Your task to perform on an android device: find snoozed emails in the gmail app Image 0: 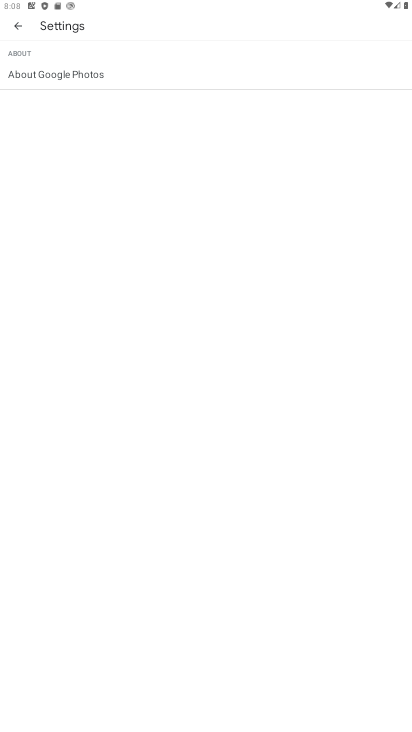
Step 0: press home button
Your task to perform on an android device: find snoozed emails in the gmail app Image 1: 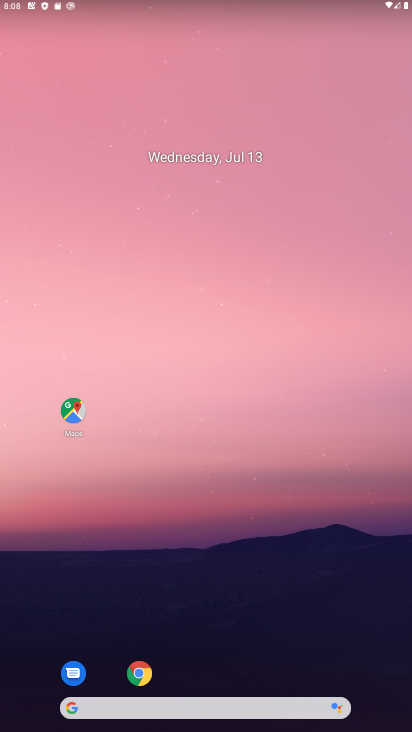
Step 1: drag from (340, 592) to (230, 50)
Your task to perform on an android device: find snoozed emails in the gmail app Image 2: 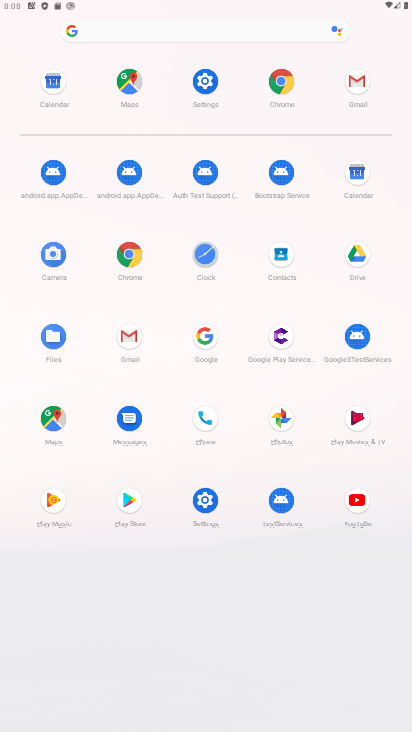
Step 2: click (365, 75)
Your task to perform on an android device: find snoozed emails in the gmail app Image 3: 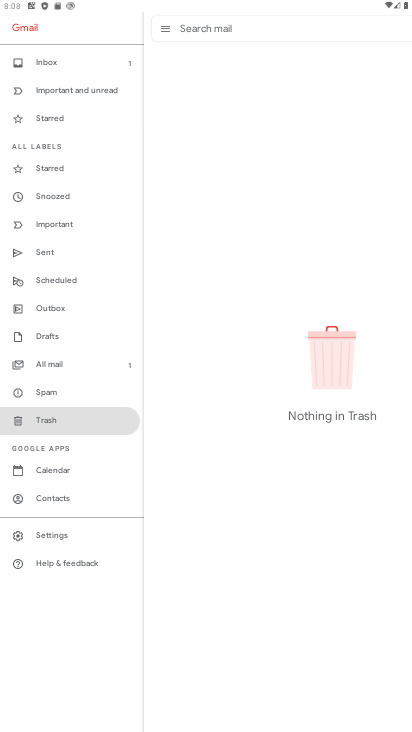
Step 3: click (72, 196)
Your task to perform on an android device: find snoozed emails in the gmail app Image 4: 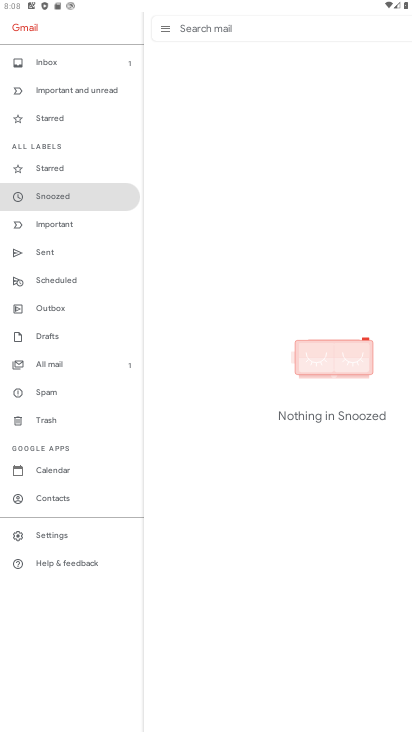
Step 4: task complete